Your task to perform on an android device: Open Android settings Image 0: 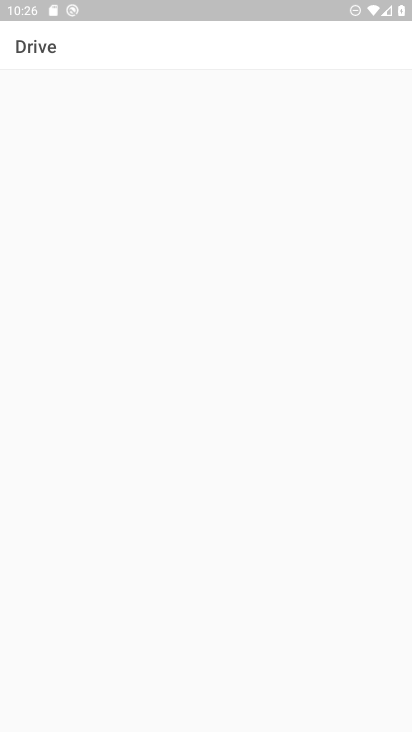
Step 0: press home button
Your task to perform on an android device: Open Android settings Image 1: 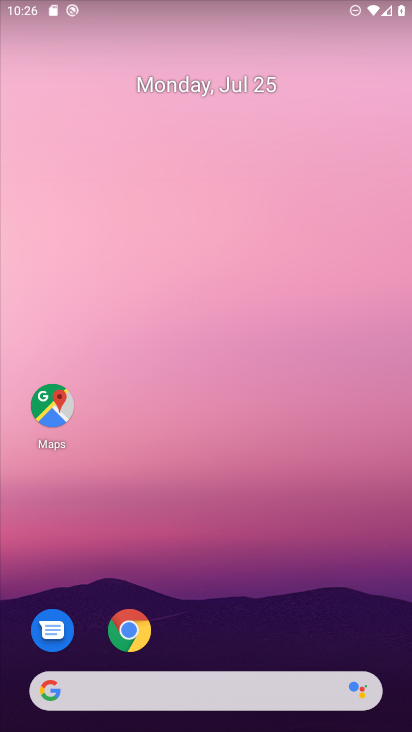
Step 1: drag from (273, 590) to (226, 34)
Your task to perform on an android device: Open Android settings Image 2: 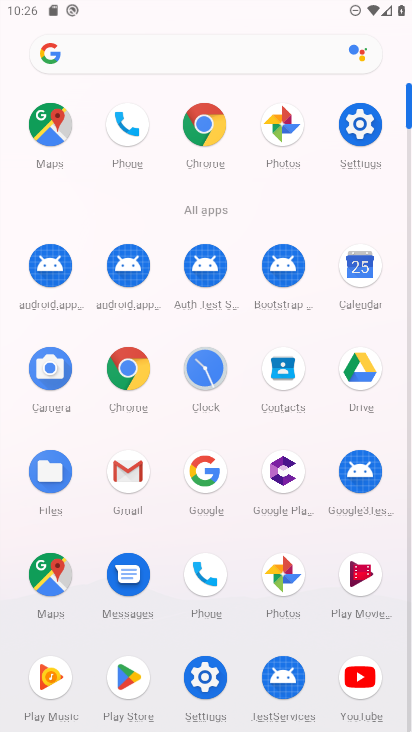
Step 2: click (354, 116)
Your task to perform on an android device: Open Android settings Image 3: 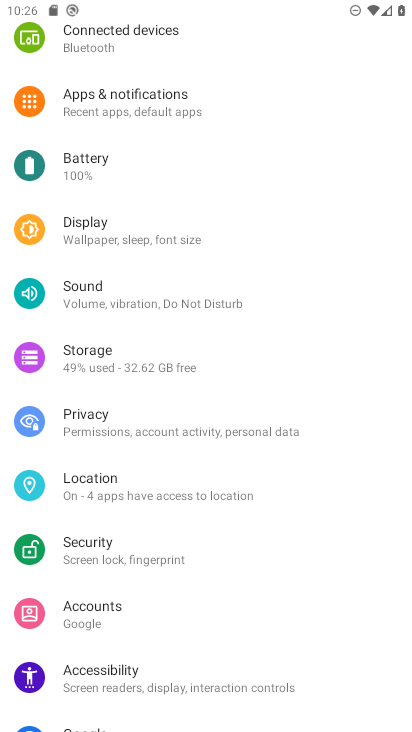
Step 3: task complete